Your task to perform on an android device: Open wifi settings Image 0: 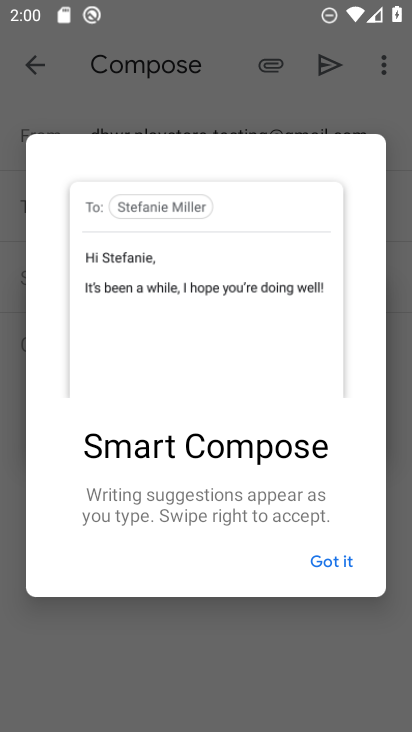
Step 0: press home button
Your task to perform on an android device: Open wifi settings Image 1: 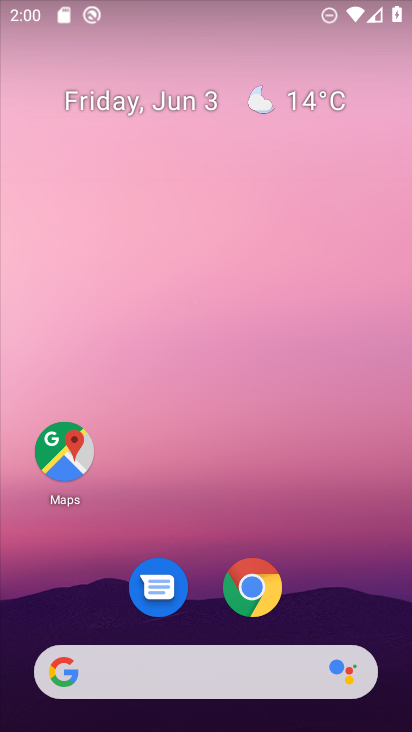
Step 1: drag from (313, 626) to (298, 31)
Your task to perform on an android device: Open wifi settings Image 2: 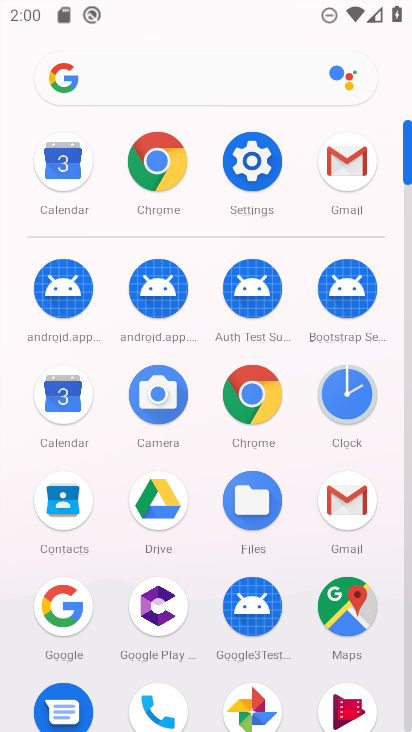
Step 2: click (259, 167)
Your task to perform on an android device: Open wifi settings Image 3: 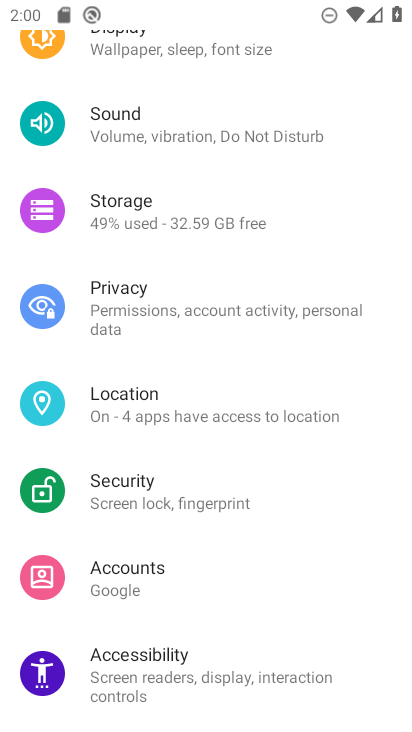
Step 3: drag from (189, 164) to (211, 604)
Your task to perform on an android device: Open wifi settings Image 4: 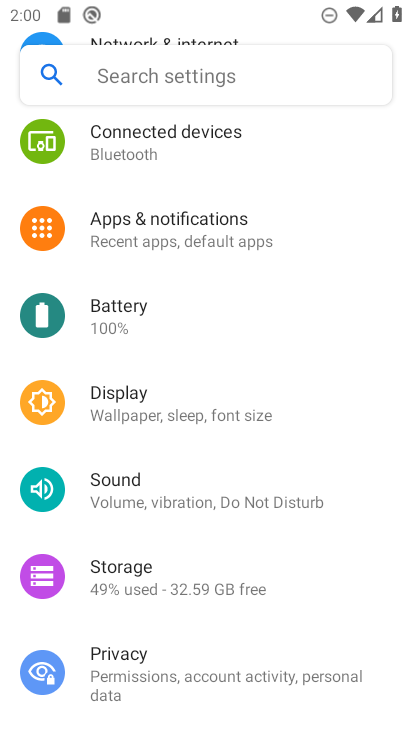
Step 4: drag from (218, 264) to (231, 680)
Your task to perform on an android device: Open wifi settings Image 5: 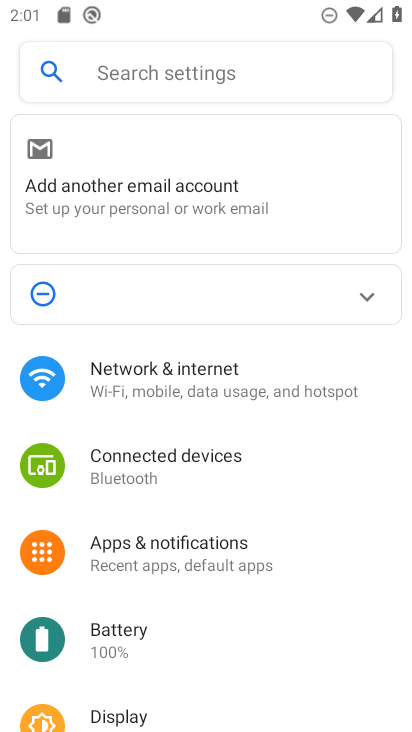
Step 5: click (238, 374)
Your task to perform on an android device: Open wifi settings Image 6: 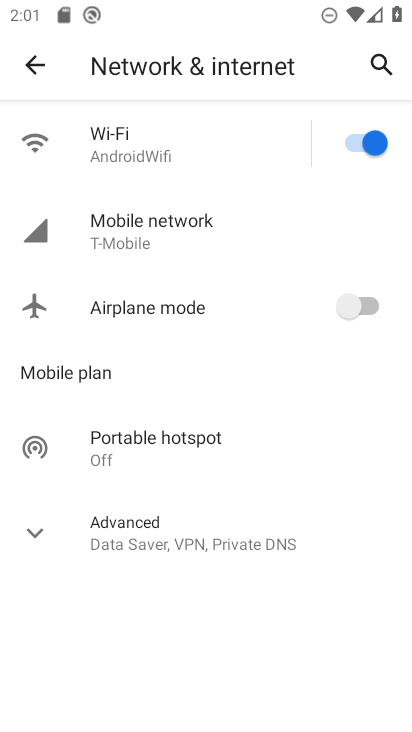
Step 6: click (83, 143)
Your task to perform on an android device: Open wifi settings Image 7: 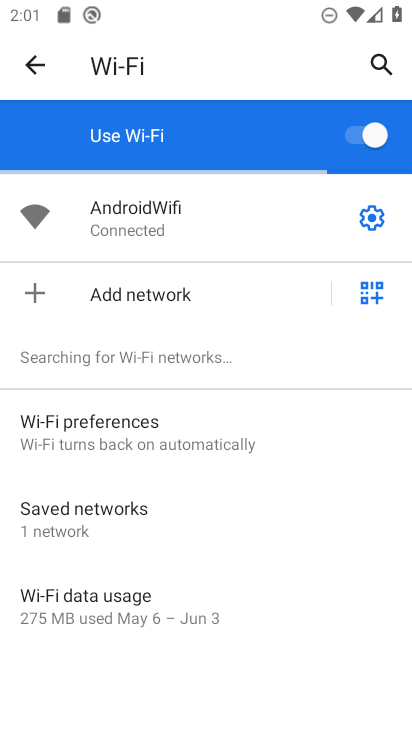
Step 7: task complete